Your task to perform on an android device: turn on the 12-hour format for clock Image 0: 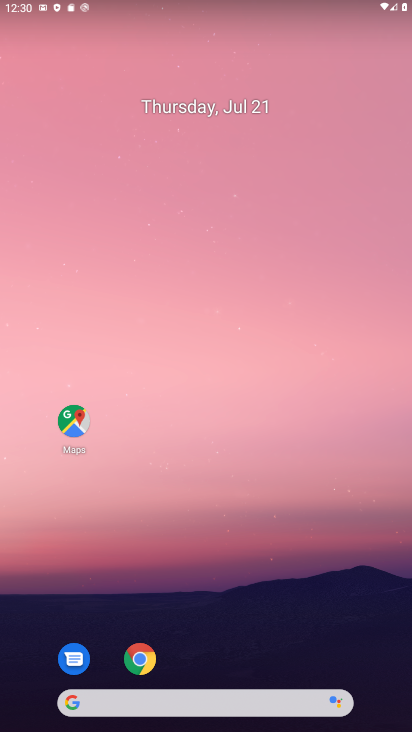
Step 0: drag from (319, 615) to (213, 8)
Your task to perform on an android device: turn on the 12-hour format for clock Image 1: 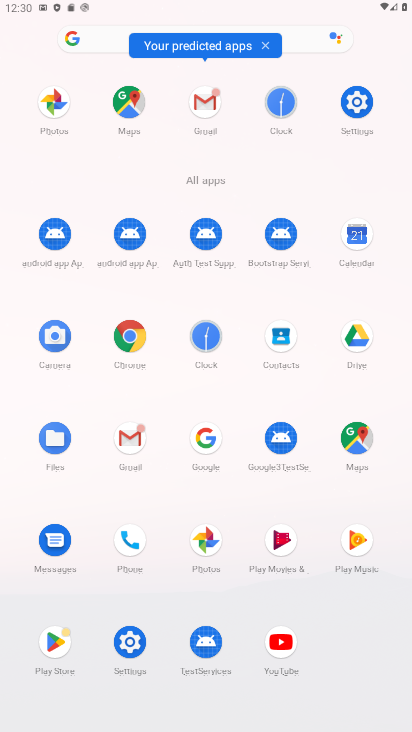
Step 1: drag from (180, 512) to (227, 4)
Your task to perform on an android device: turn on the 12-hour format for clock Image 2: 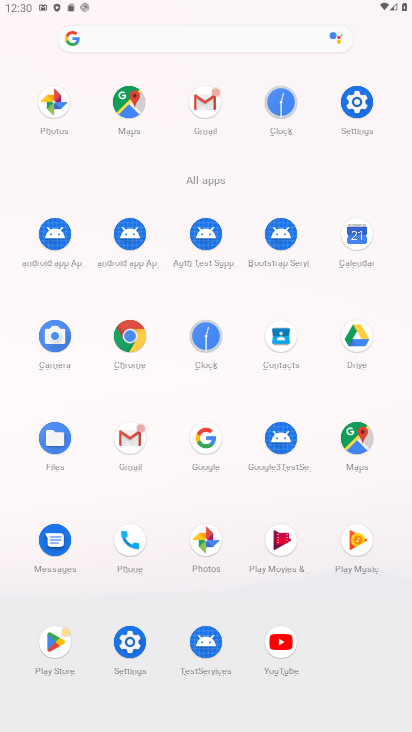
Step 2: click (264, 9)
Your task to perform on an android device: turn on the 12-hour format for clock Image 3: 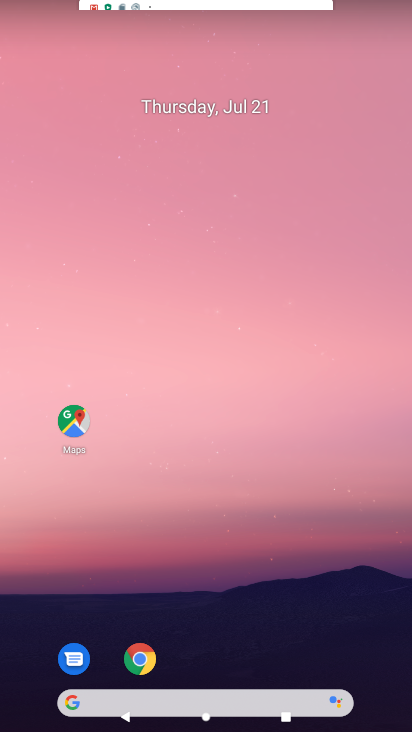
Step 3: click (262, 219)
Your task to perform on an android device: turn on the 12-hour format for clock Image 4: 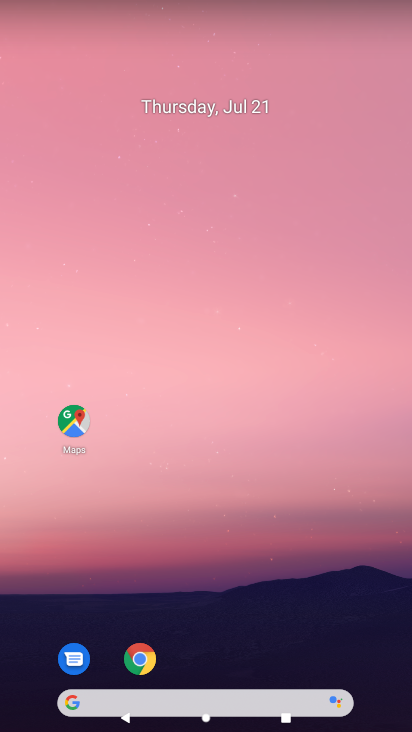
Step 4: click (207, 342)
Your task to perform on an android device: turn on the 12-hour format for clock Image 5: 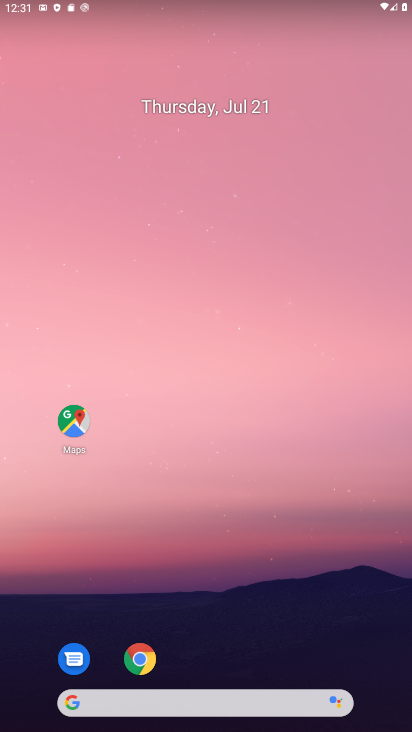
Step 5: click (207, 342)
Your task to perform on an android device: turn on the 12-hour format for clock Image 6: 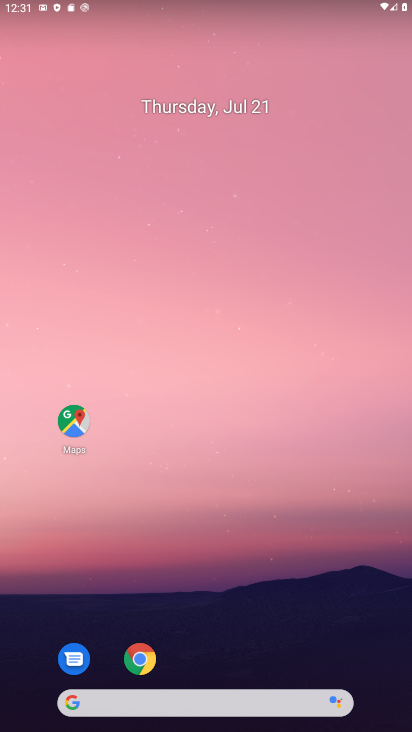
Step 6: click (218, 353)
Your task to perform on an android device: turn on the 12-hour format for clock Image 7: 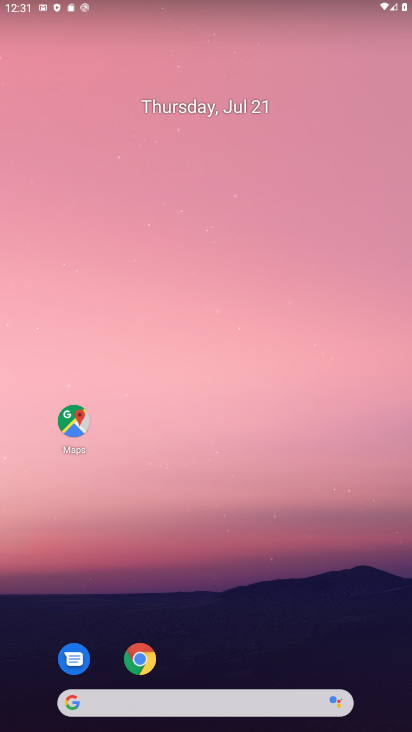
Step 7: click (220, 356)
Your task to perform on an android device: turn on the 12-hour format for clock Image 8: 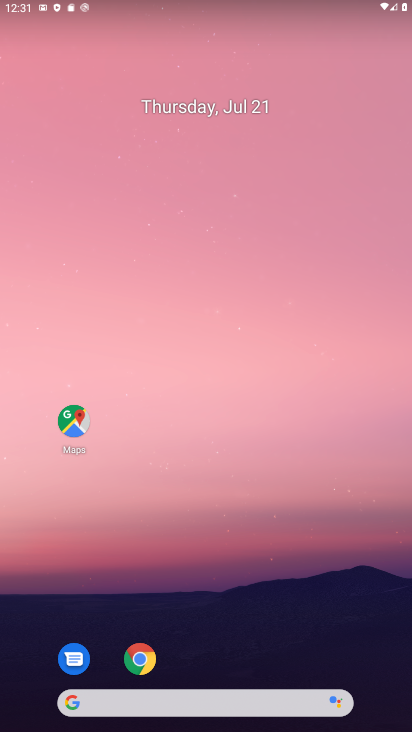
Step 8: drag from (271, 551) to (195, 48)
Your task to perform on an android device: turn on the 12-hour format for clock Image 9: 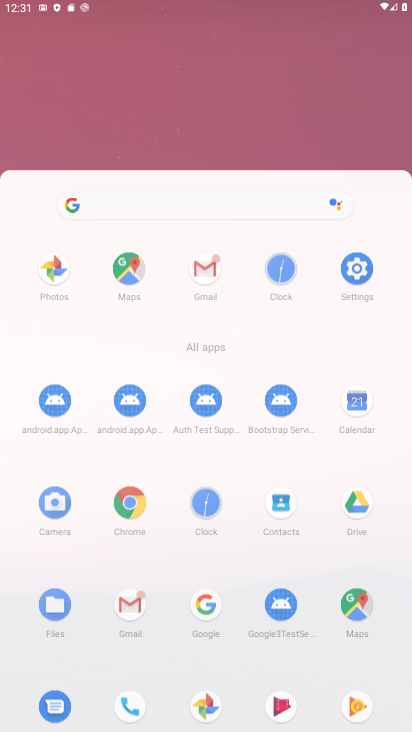
Step 9: drag from (226, 379) to (217, 56)
Your task to perform on an android device: turn on the 12-hour format for clock Image 10: 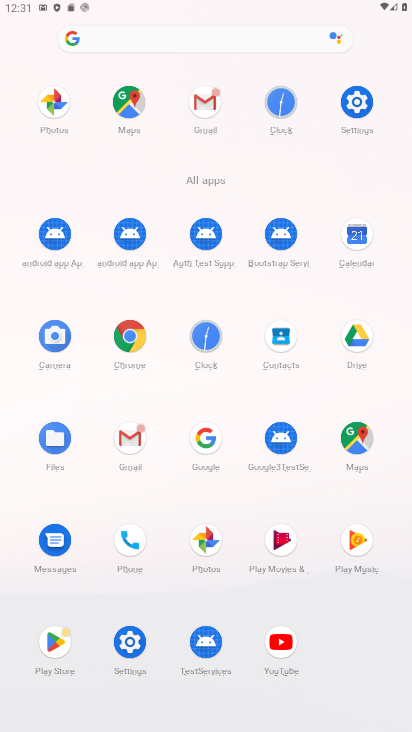
Step 10: click (205, 341)
Your task to perform on an android device: turn on the 12-hour format for clock Image 11: 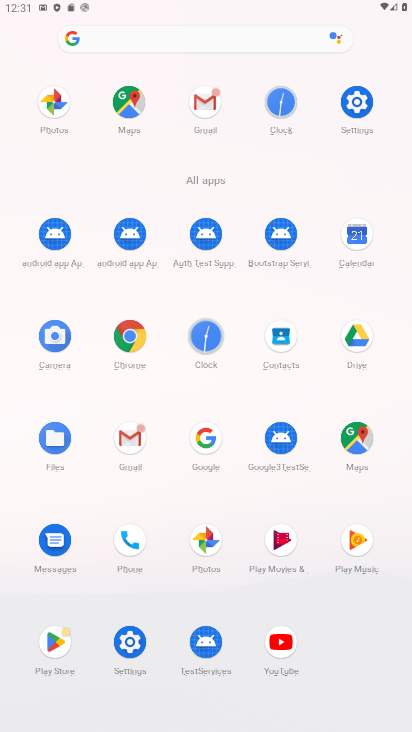
Step 11: click (205, 340)
Your task to perform on an android device: turn on the 12-hour format for clock Image 12: 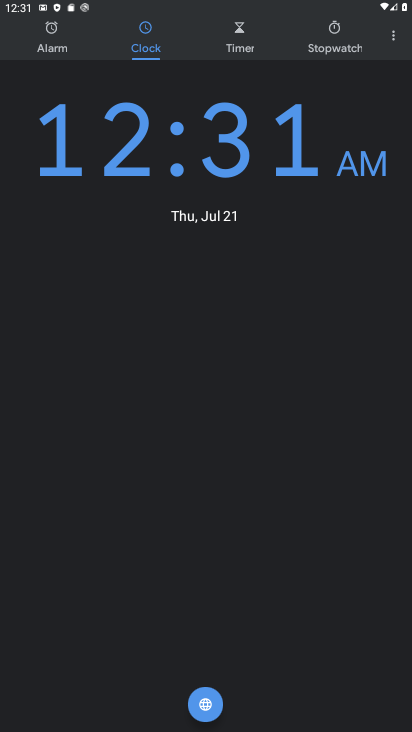
Step 12: click (393, 32)
Your task to perform on an android device: turn on the 12-hour format for clock Image 13: 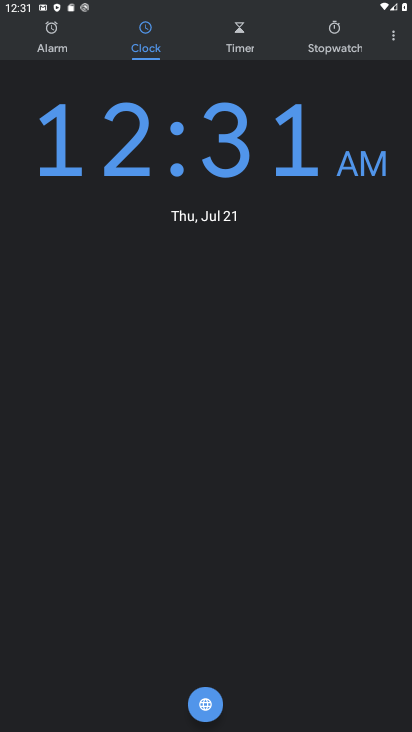
Step 13: click (390, 32)
Your task to perform on an android device: turn on the 12-hour format for clock Image 14: 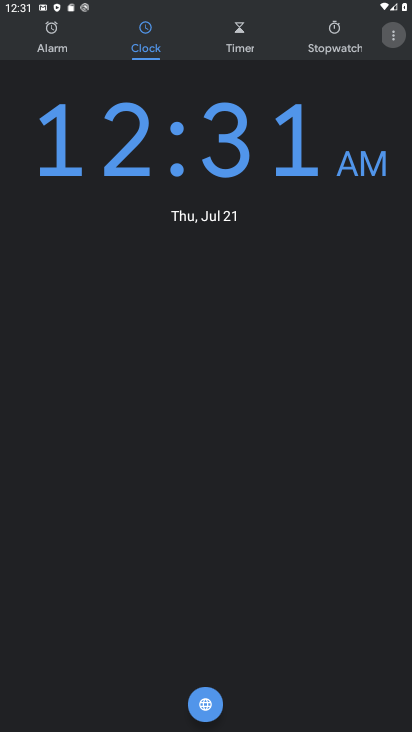
Step 14: click (390, 32)
Your task to perform on an android device: turn on the 12-hour format for clock Image 15: 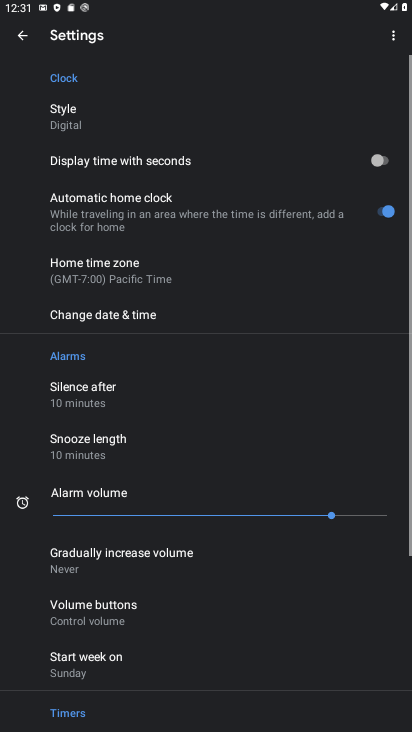
Step 15: click (393, 34)
Your task to perform on an android device: turn on the 12-hour format for clock Image 16: 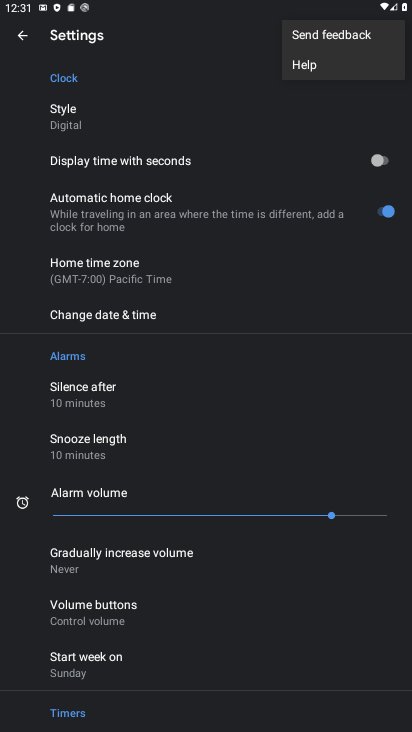
Step 16: click (66, 118)
Your task to perform on an android device: turn on the 12-hour format for clock Image 17: 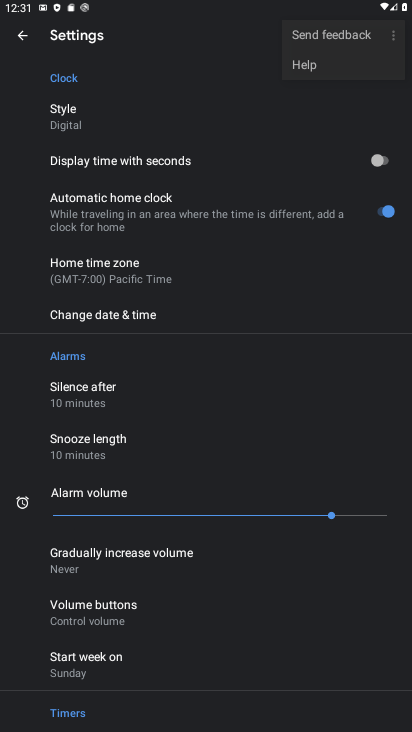
Step 17: click (70, 119)
Your task to perform on an android device: turn on the 12-hour format for clock Image 18: 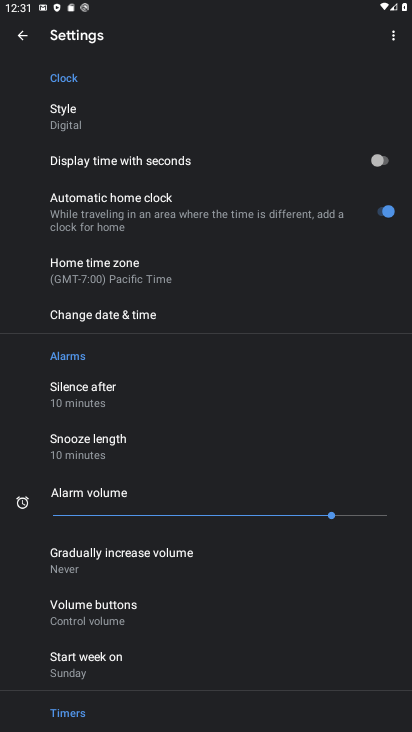
Step 18: click (70, 119)
Your task to perform on an android device: turn on the 12-hour format for clock Image 19: 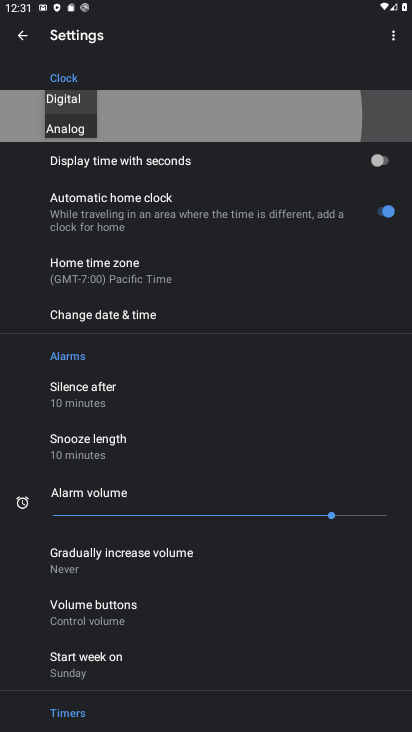
Step 19: click (70, 118)
Your task to perform on an android device: turn on the 12-hour format for clock Image 20: 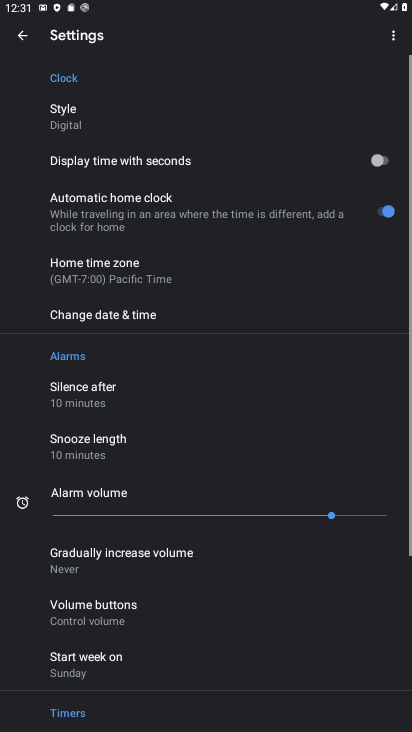
Step 20: click (82, 120)
Your task to perform on an android device: turn on the 12-hour format for clock Image 21: 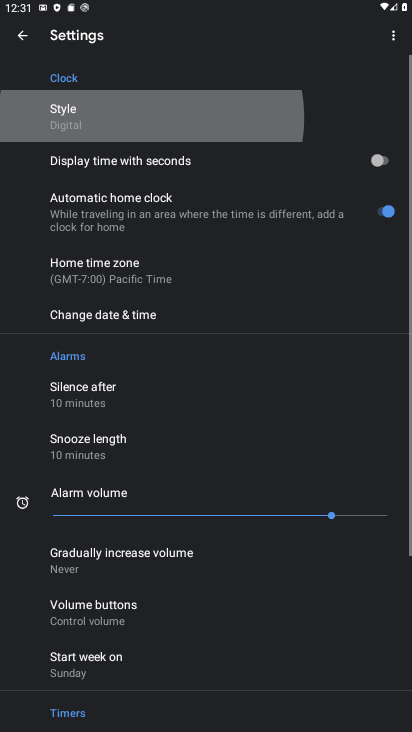
Step 21: click (82, 121)
Your task to perform on an android device: turn on the 12-hour format for clock Image 22: 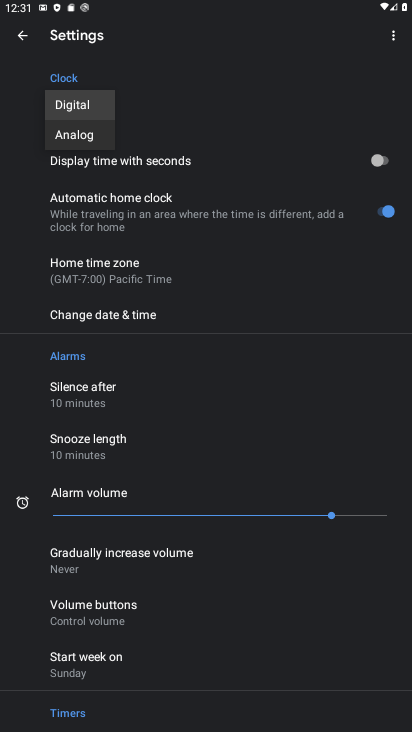
Step 22: click (84, 124)
Your task to perform on an android device: turn on the 12-hour format for clock Image 23: 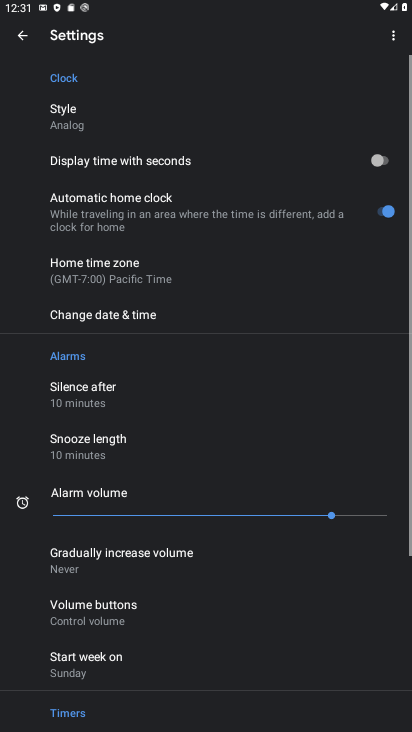
Step 23: click (86, 136)
Your task to perform on an android device: turn on the 12-hour format for clock Image 24: 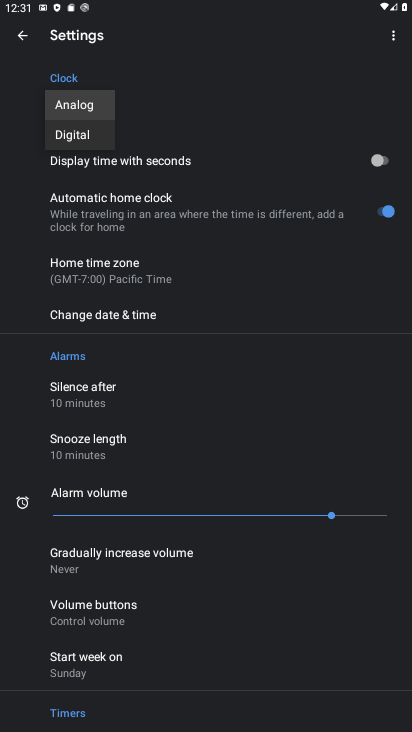
Step 24: click (112, 309)
Your task to perform on an android device: turn on the 12-hour format for clock Image 25: 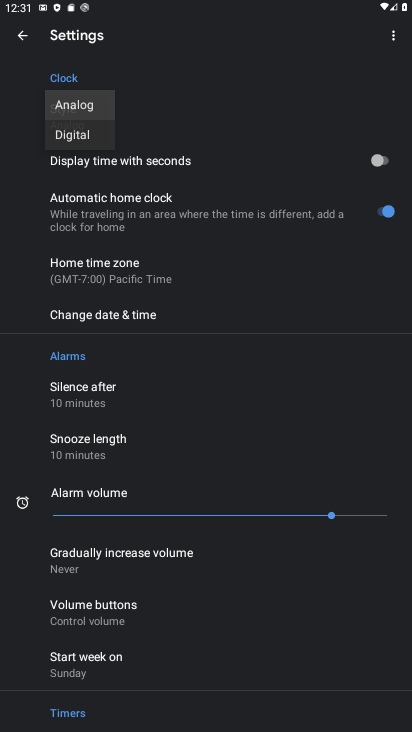
Step 25: click (112, 309)
Your task to perform on an android device: turn on the 12-hour format for clock Image 26: 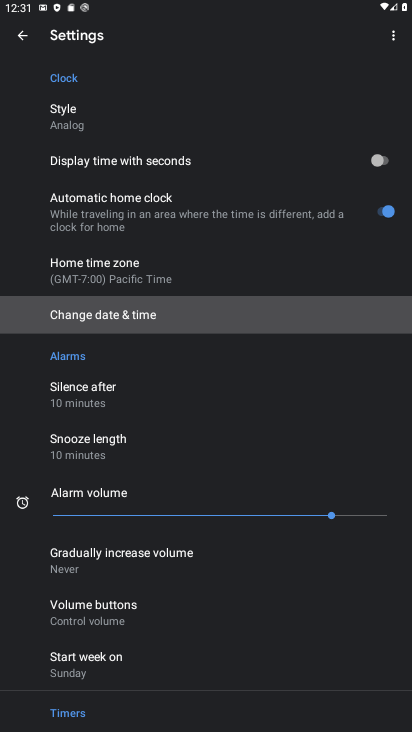
Step 26: click (122, 313)
Your task to perform on an android device: turn on the 12-hour format for clock Image 27: 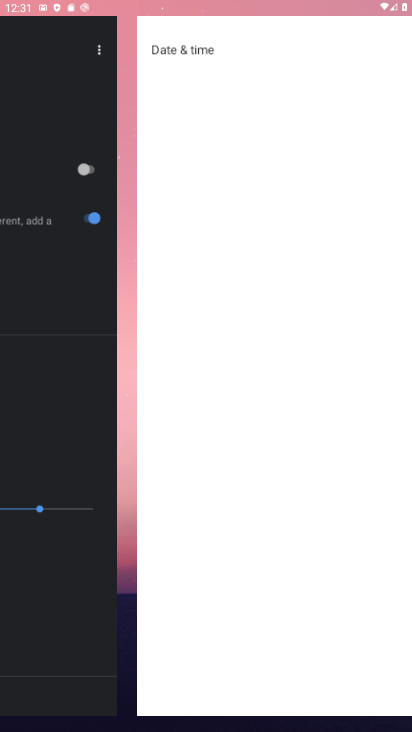
Step 27: click (123, 315)
Your task to perform on an android device: turn on the 12-hour format for clock Image 28: 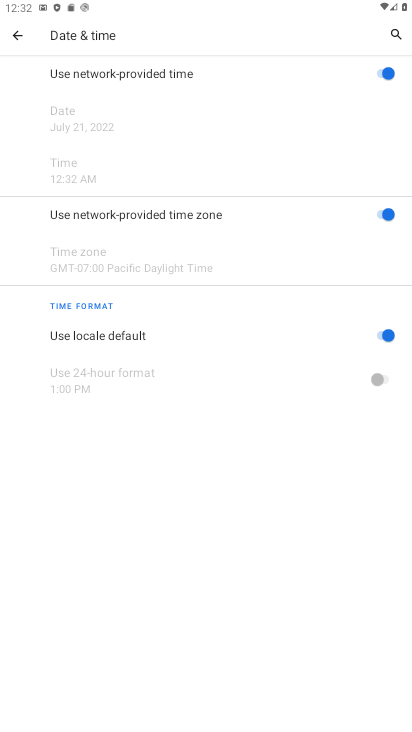
Step 28: task complete